Your task to perform on an android device: Open settings on Google Maps Image 0: 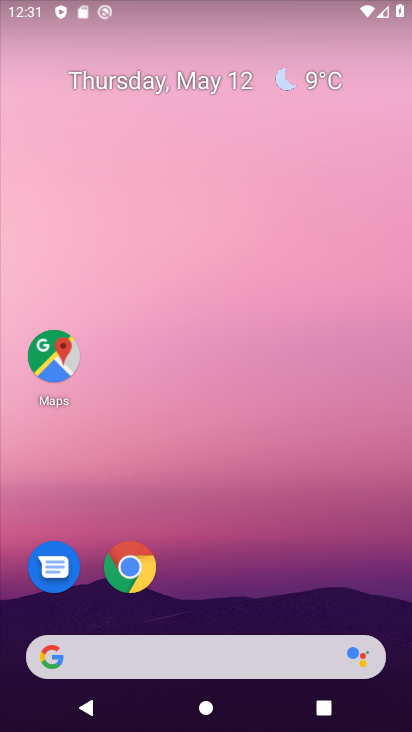
Step 0: click (64, 353)
Your task to perform on an android device: Open settings on Google Maps Image 1: 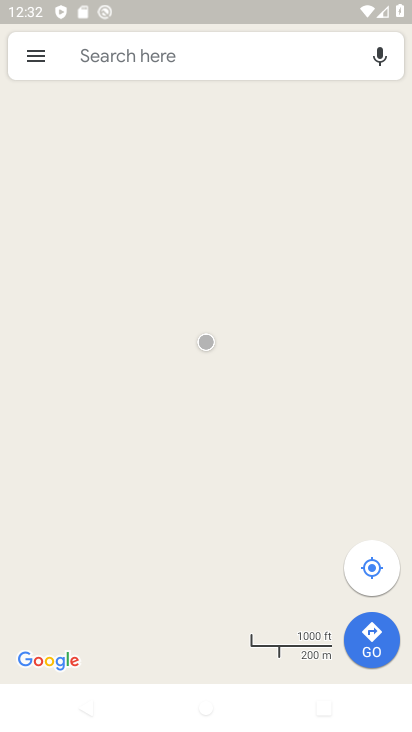
Step 1: click (37, 65)
Your task to perform on an android device: Open settings on Google Maps Image 2: 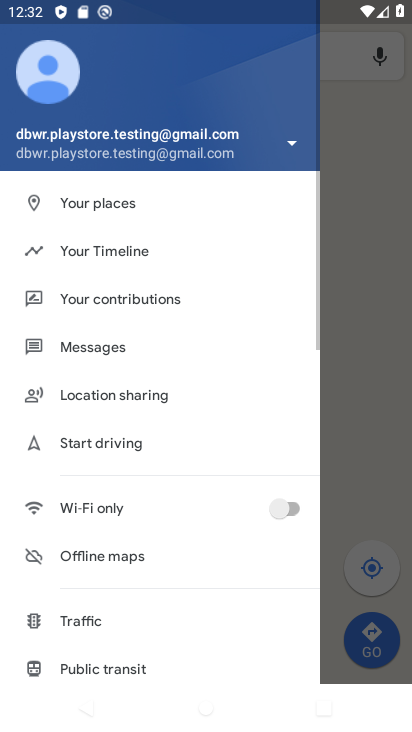
Step 2: drag from (146, 617) to (244, 218)
Your task to perform on an android device: Open settings on Google Maps Image 3: 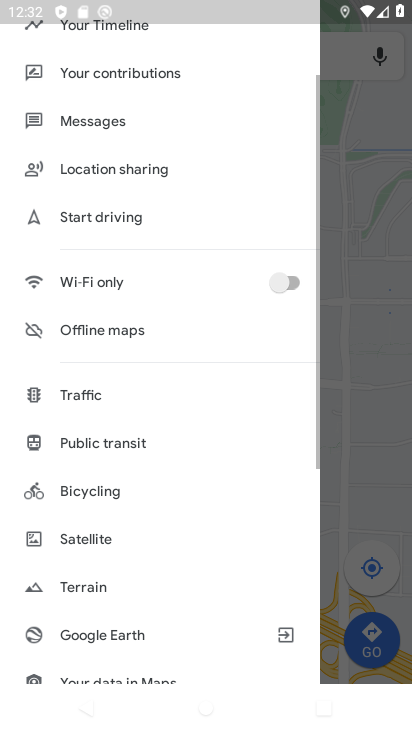
Step 3: drag from (140, 656) to (212, 310)
Your task to perform on an android device: Open settings on Google Maps Image 4: 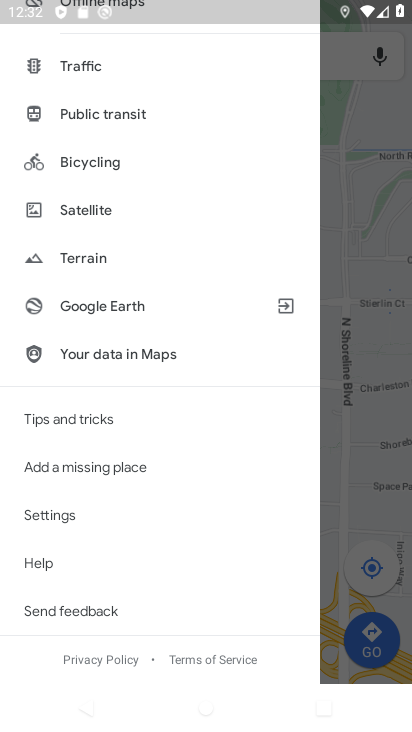
Step 4: click (119, 518)
Your task to perform on an android device: Open settings on Google Maps Image 5: 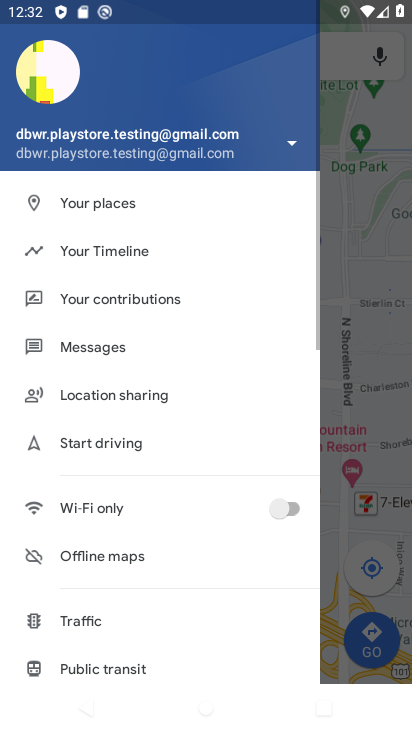
Step 5: drag from (144, 638) to (248, 172)
Your task to perform on an android device: Open settings on Google Maps Image 6: 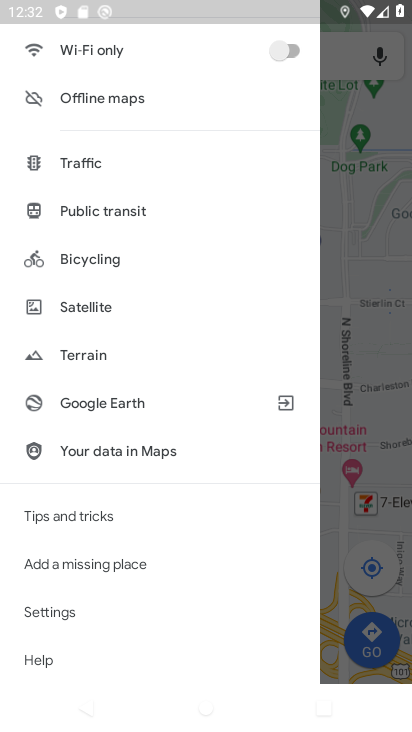
Step 6: click (99, 611)
Your task to perform on an android device: Open settings on Google Maps Image 7: 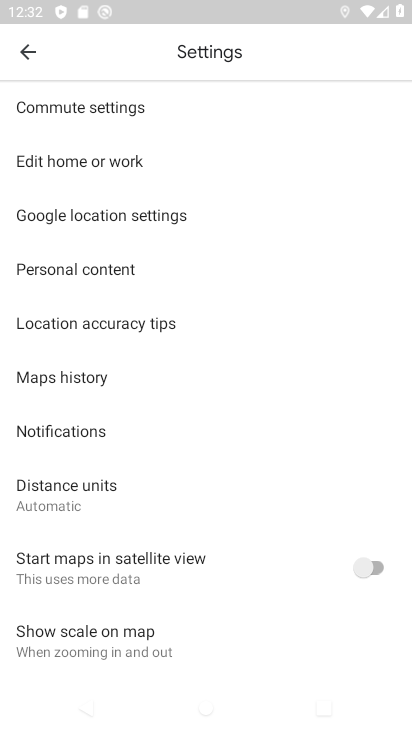
Step 7: task complete